Your task to perform on an android device: Go to eBay Image 0: 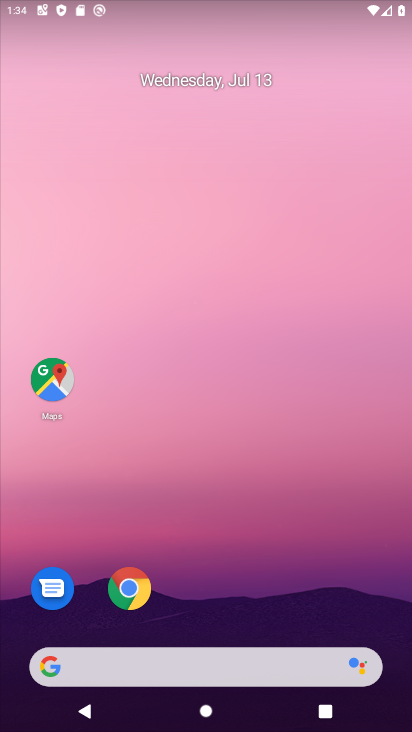
Step 0: drag from (186, 635) to (181, 255)
Your task to perform on an android device: Go to eBay Image 1: 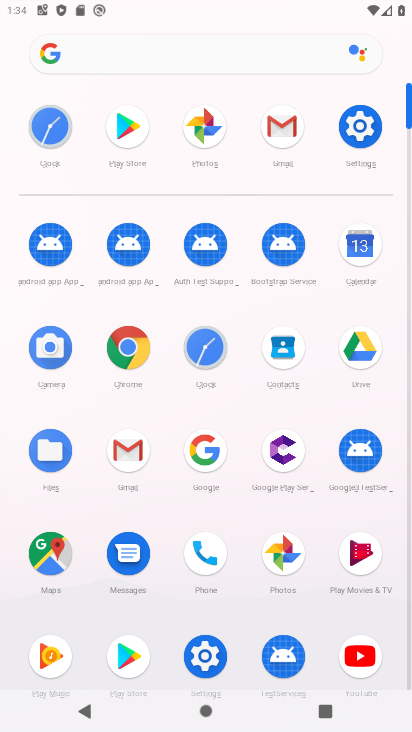
Step 1: click (122, 347)
Your task to perform on an android device: Go to eBay Image 2: 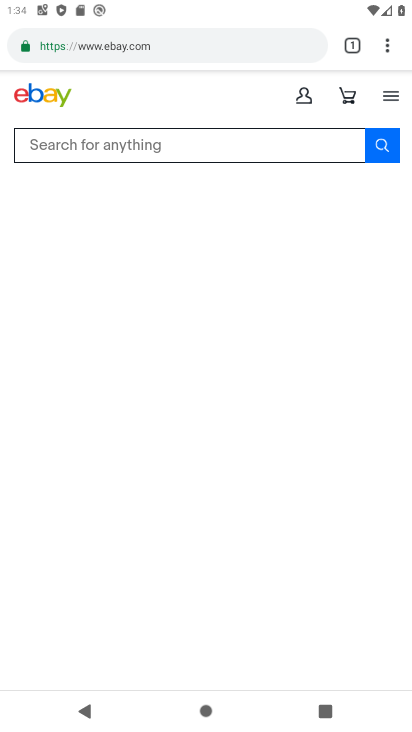
Step 2: task complete